Your task to perform on an android device: Open notification settings Image 0: 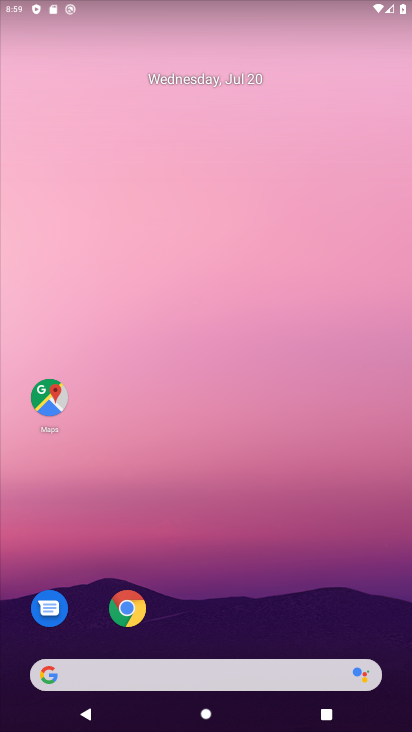
Step 0: drag from (233, 688) to (150, 19)
Your task to perform on an android device: Open notification settings Image 1: 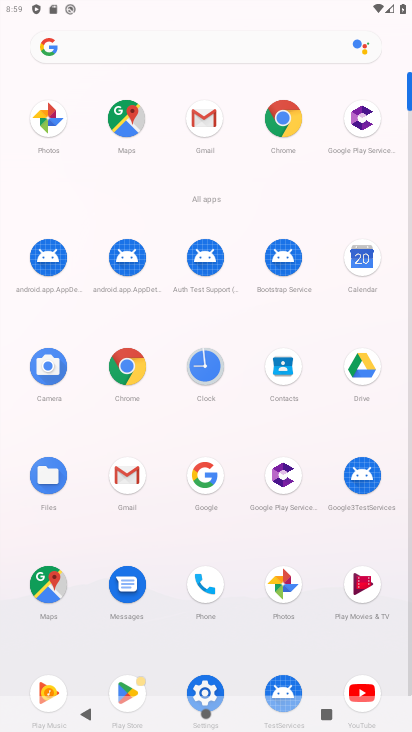
Step 1: drag from (273, 379) to (273, 17)
Your task to perform on an android device: Open notification settings Image 2: 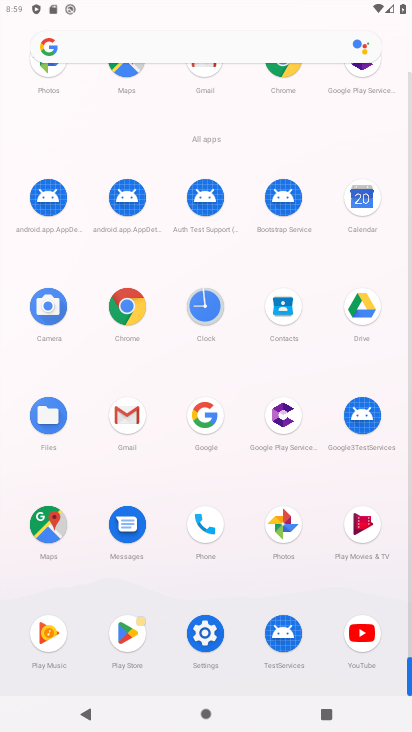
Step 2: click (199, 633)
Your task to perform on an android device: Open notification settings Image 3: 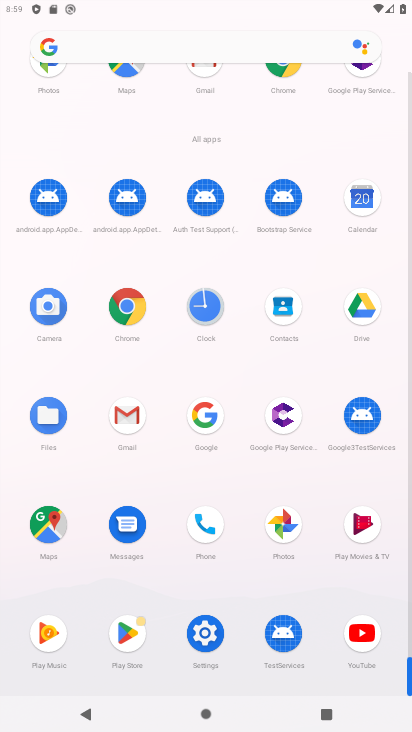
Step 3: click (199, 633)
Your task to perform on an android device: Open notification settings Image 4: 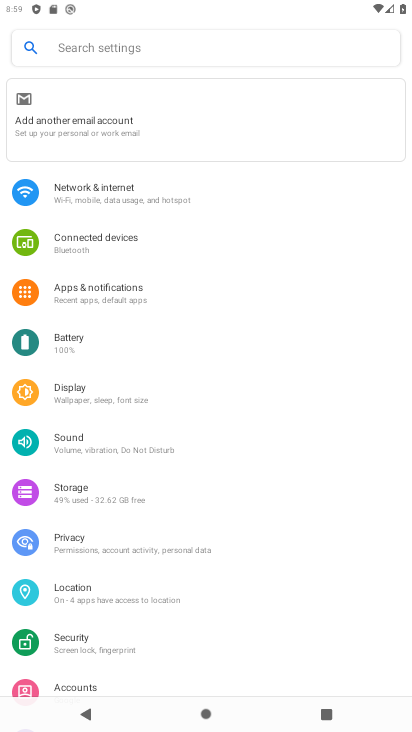
Step 4: click (187, 202)
Your task to perform on an android device: Open notification settings Image 5: 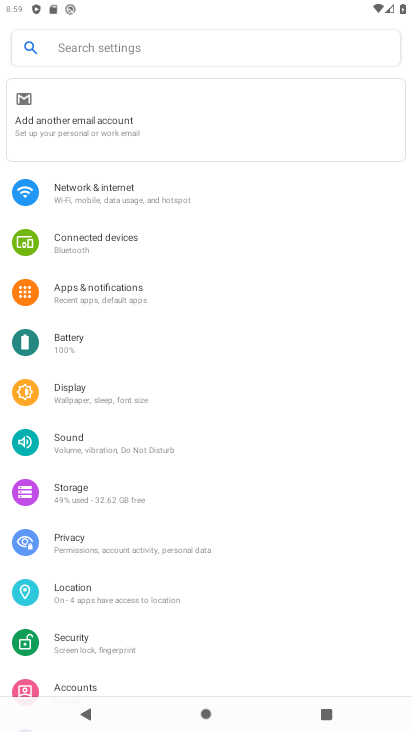
Step 5: click (187, 202)
Your task to perform on an android device: Open notification settings Image 6: 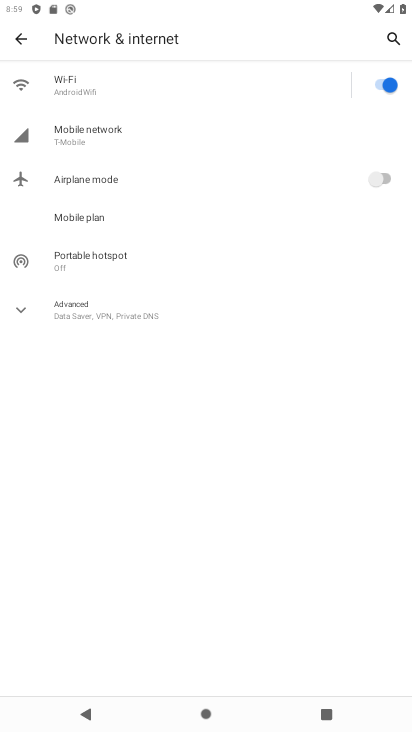
Step 6: click (272, 535)
Your task to perform on an android device: Open notification settings Image 7: 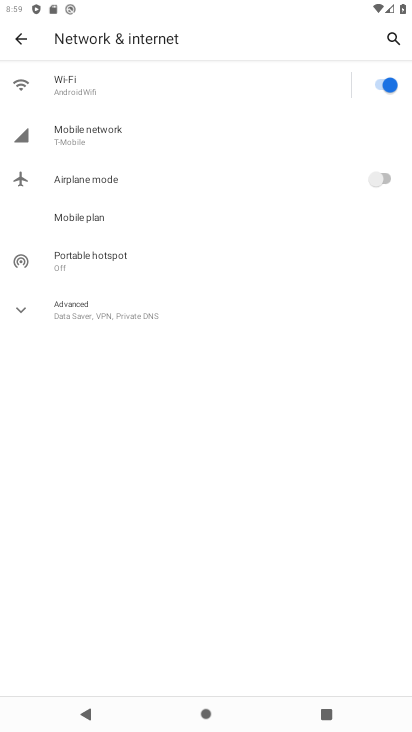
Step 7: task complete